Your task to perform on an android device: check out phone information Image 0: 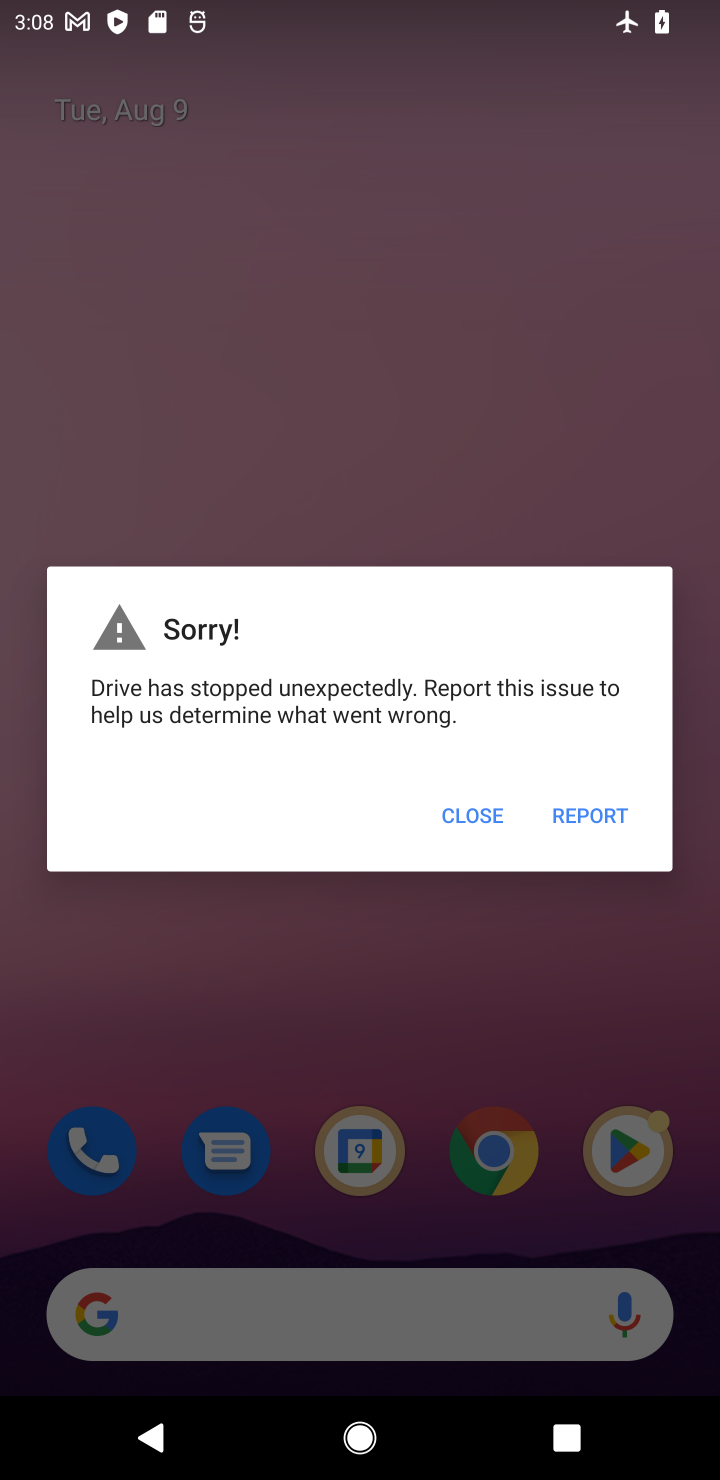
Step 0: press home button
Your task to perform on an android device: check out phone information Image 1: 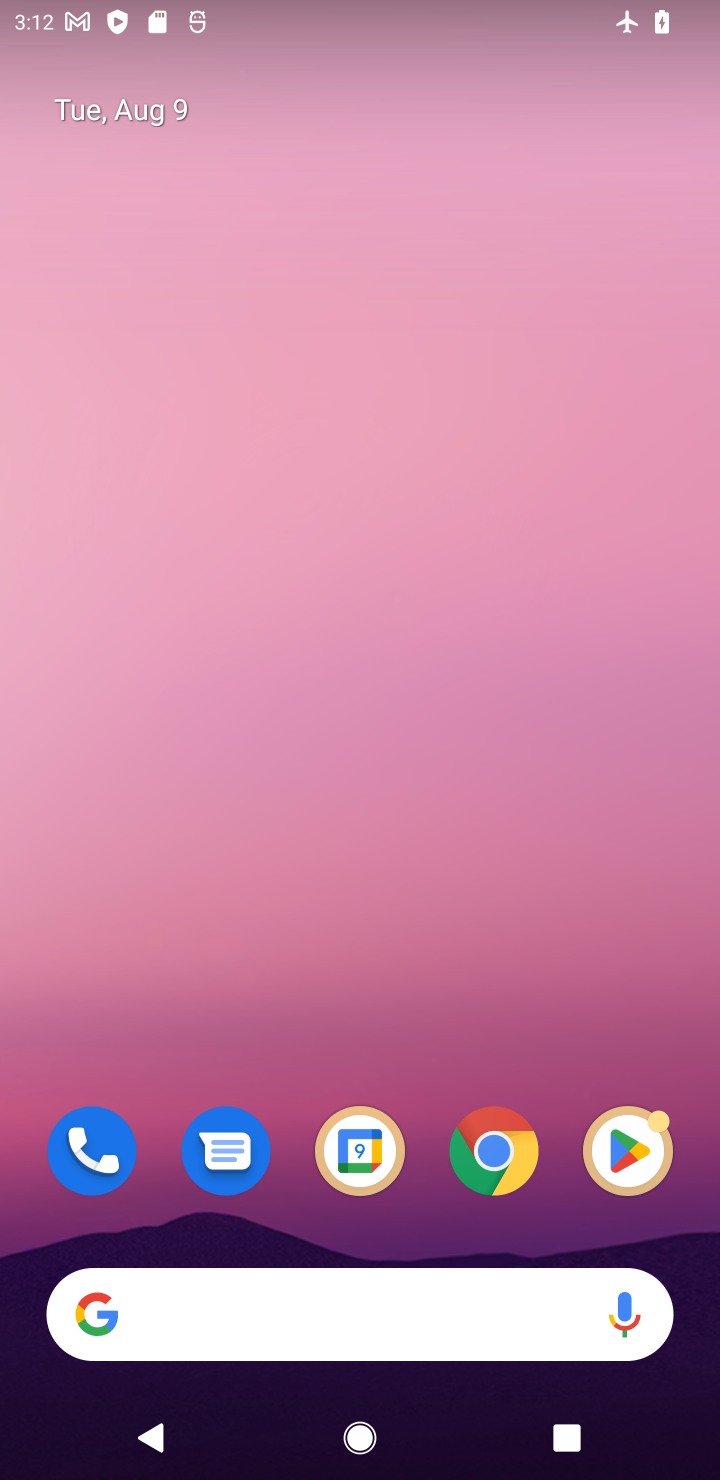
Step 1: drag from (481, 1251) to (502, 573)
Your task to perform on an android device: check out phone information Image 2: 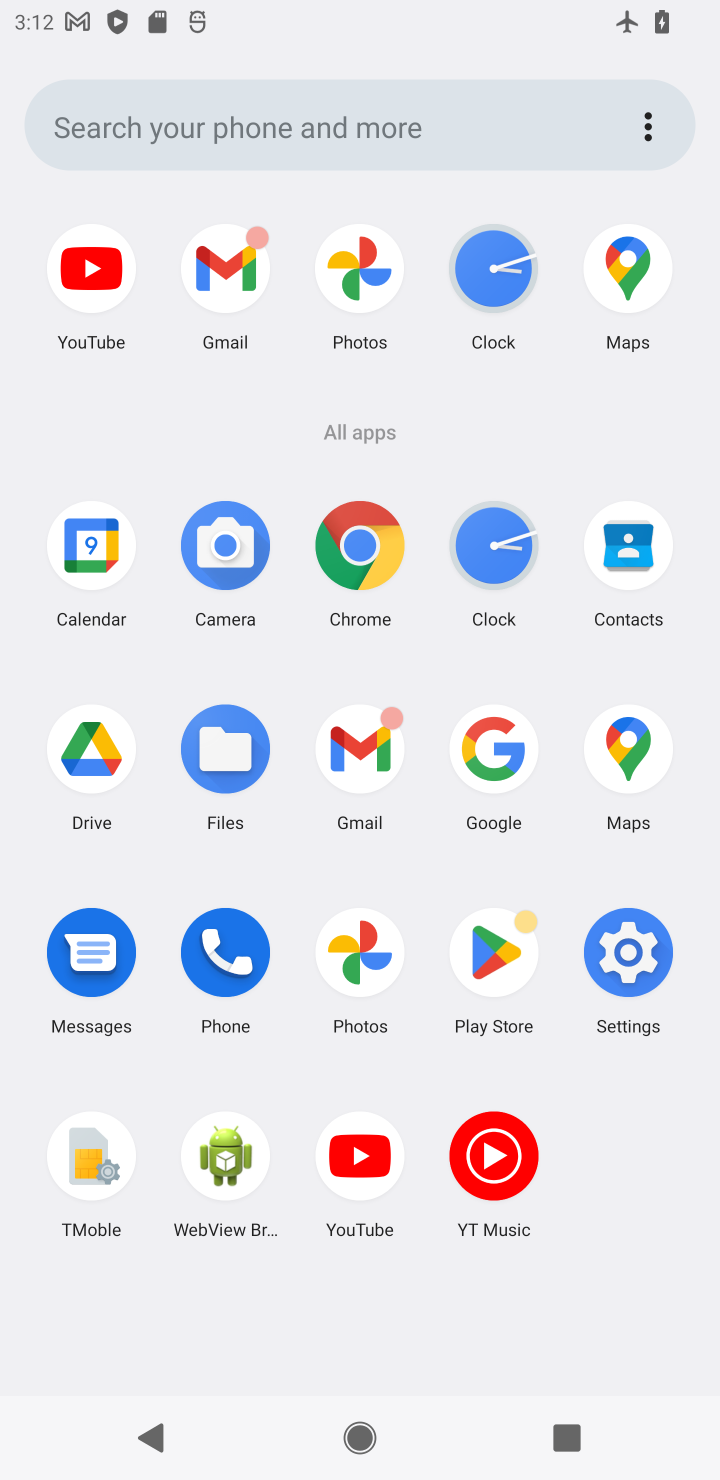
Step 2: click (654, 967)
Your task to perform on an android device: check out phone information Image 3: 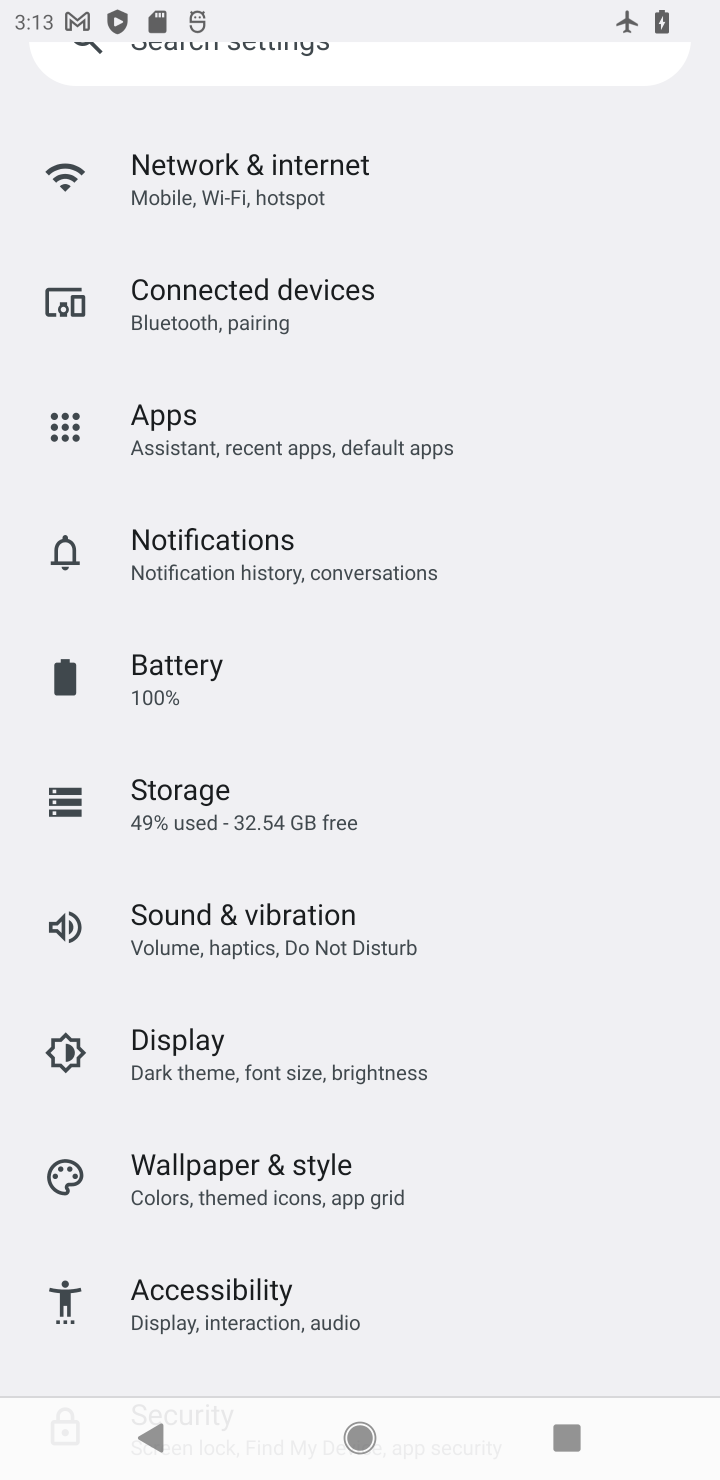
Step 3: drag from (534, 1242) to (643, 92)
Your task to perform on an android device: check out phone information Image 4: 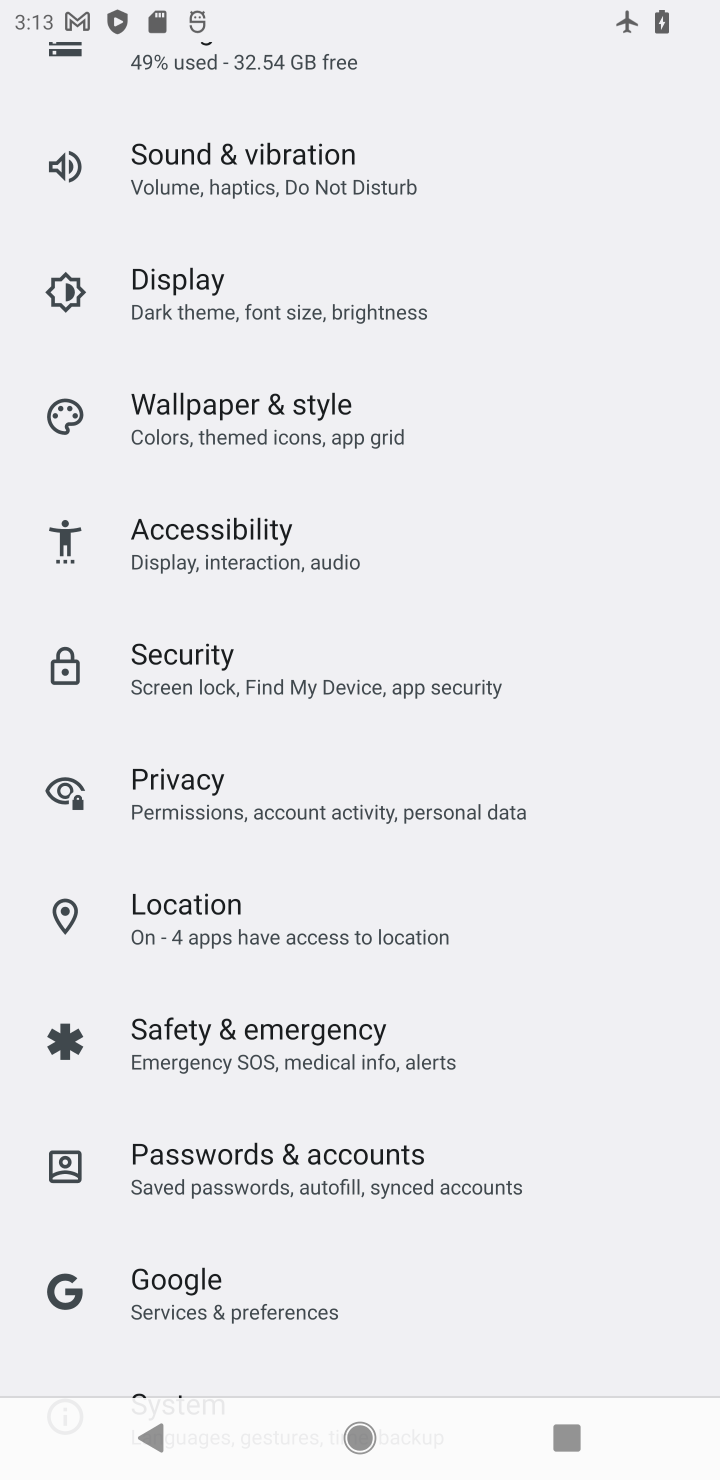
Step 4: drag from (358, 1213) to (710, 1120)
Your task to perform on an android device: check out phone information Image 5: 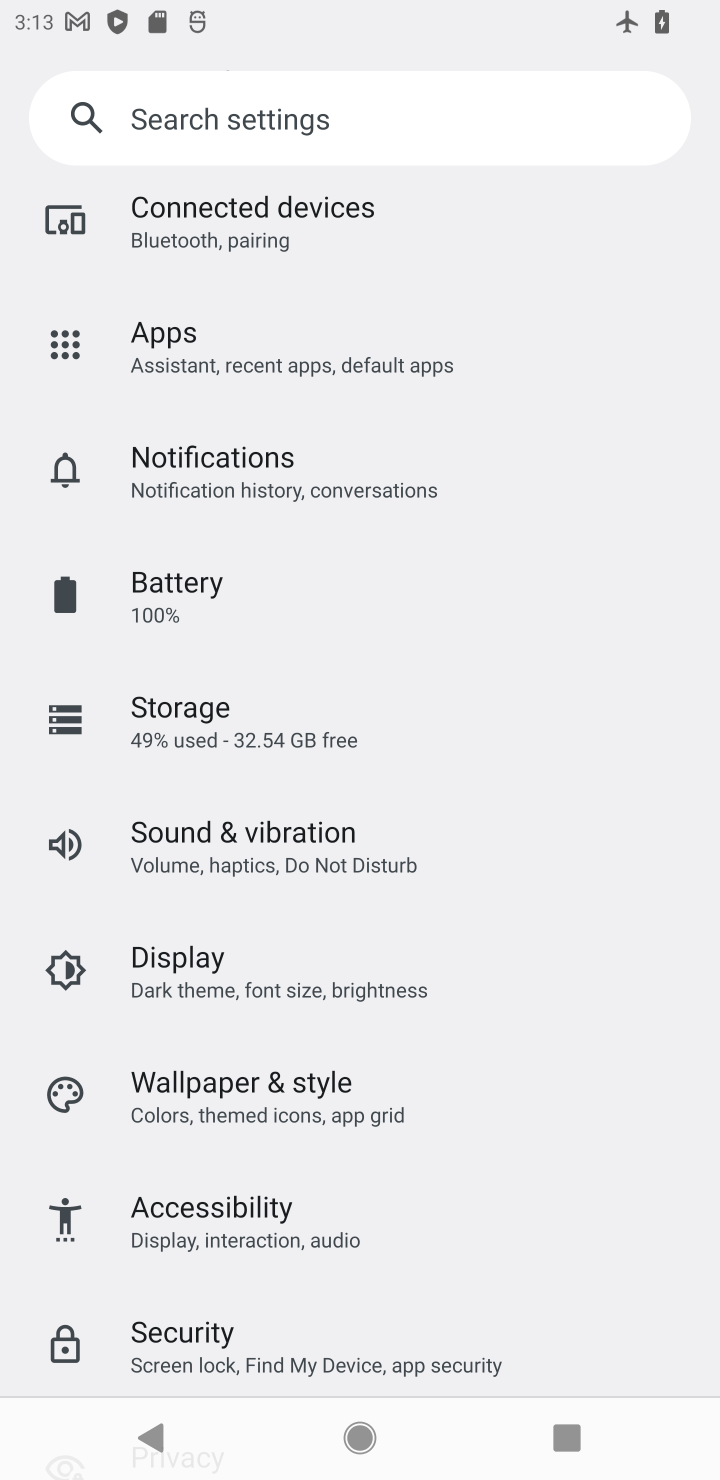
Step 5: drag from (494, 1292) to (689, 609)
Your task to perform on an android device: check out phone information Image 6: 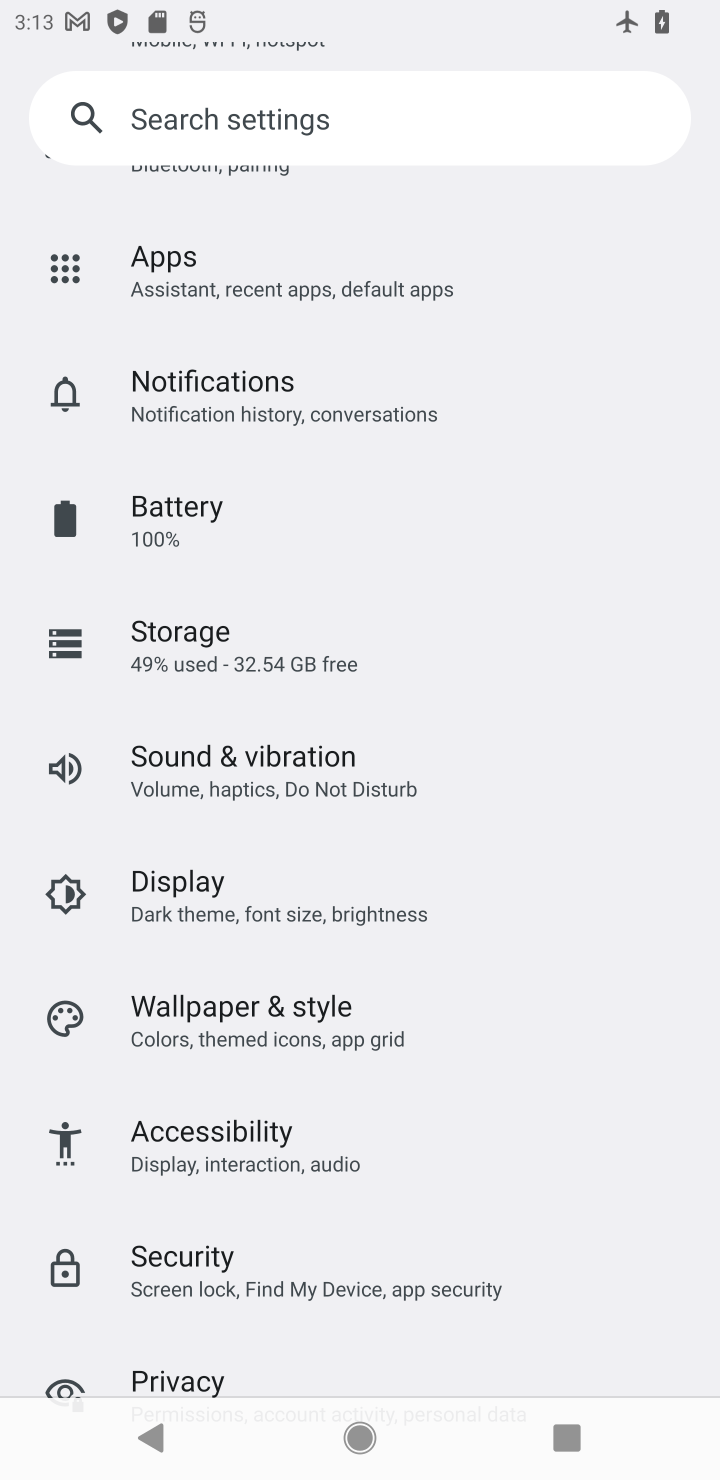
Step 6: drag from (415, 655) to (714, 491)
Your task to perform on an android device: check out phone information Image 7: 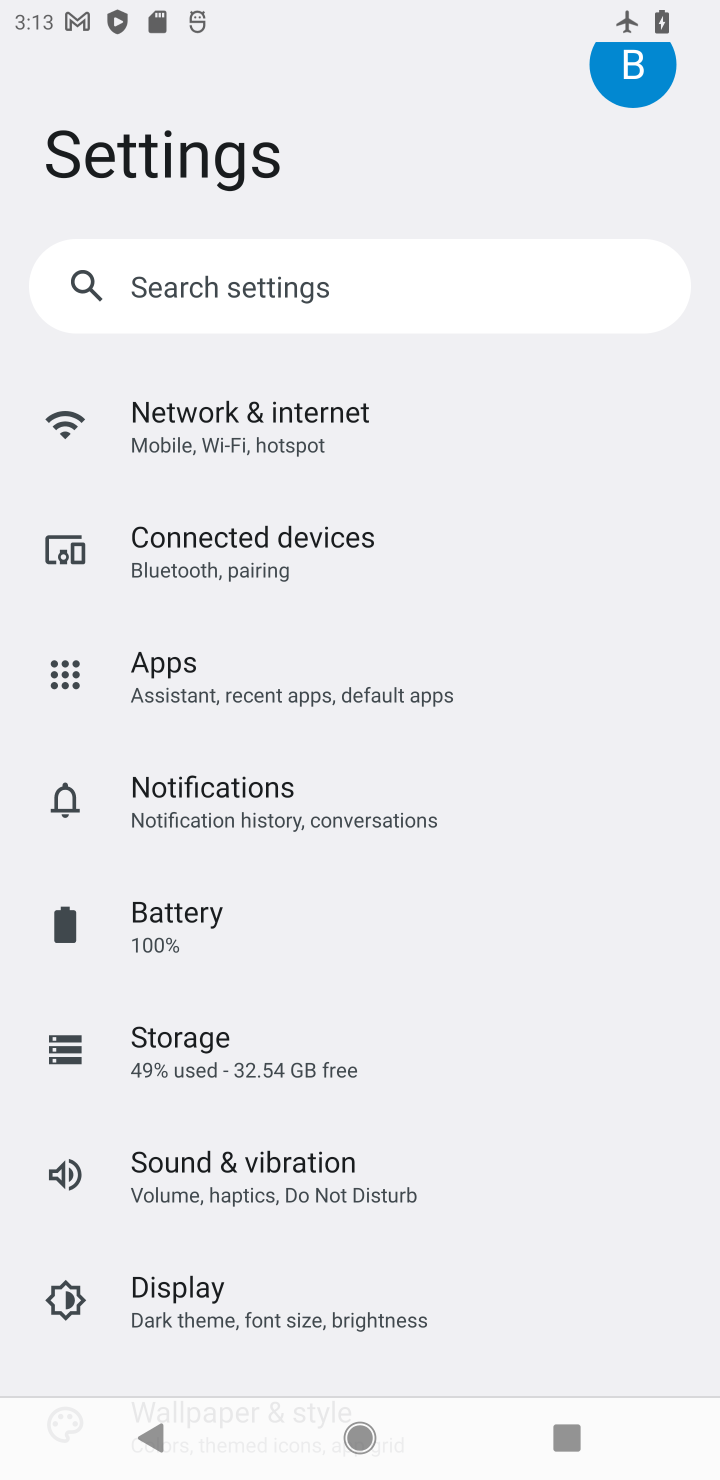
Step 7: drag from (484, 1302) to (660, 411)
Your task to perform on an android device: check out phone information Image 8: 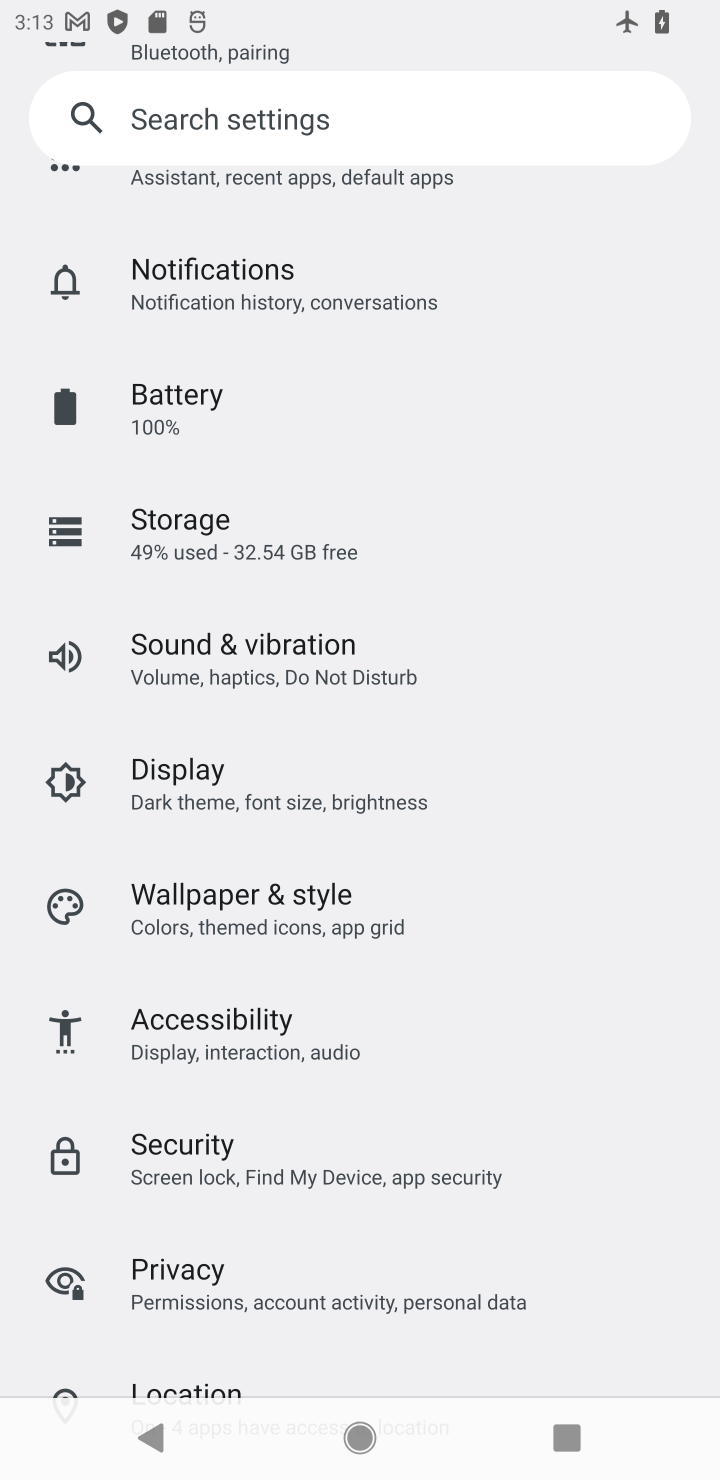
Step 8: drag from (625, 1183) to (717, 328)
Your task to perform on an android device: check out phone information Image 9: 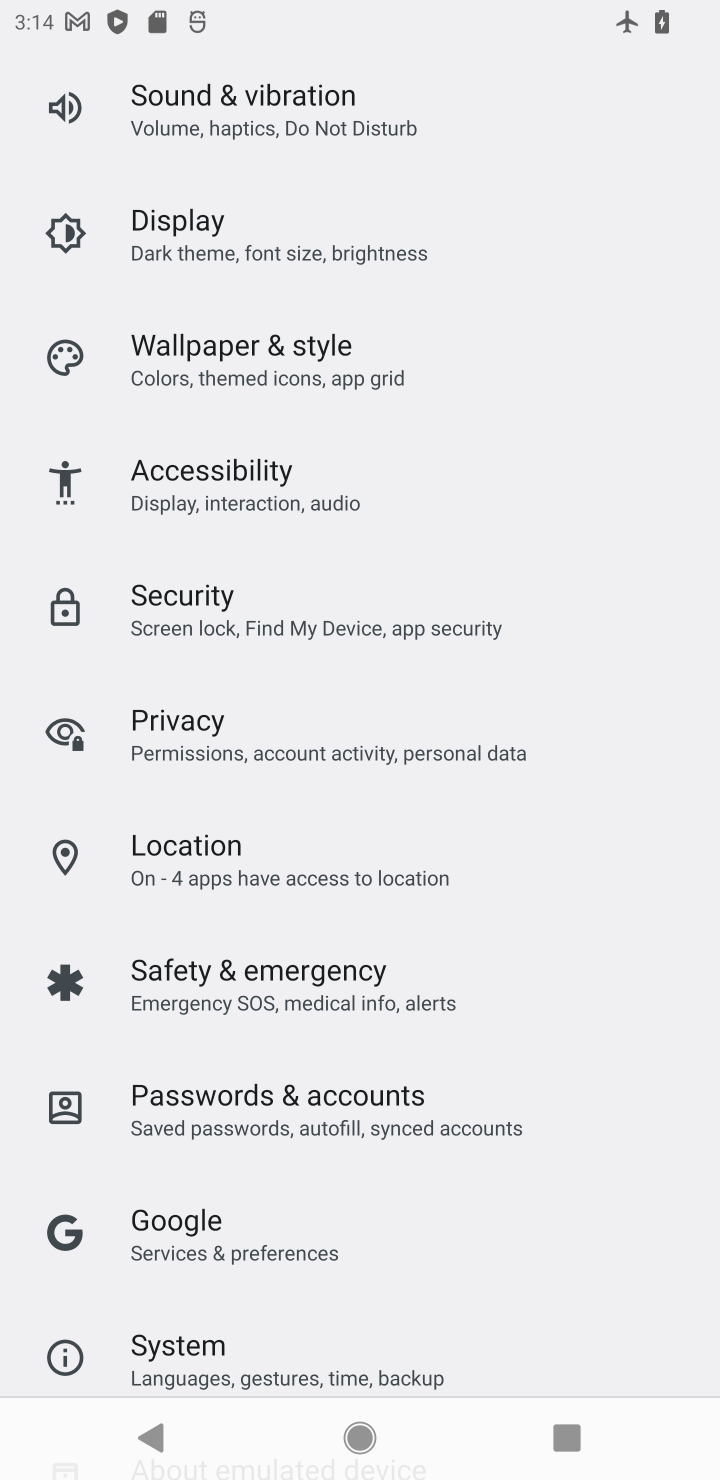
Step 9: click (272, 1349)
Your task to perform on an android device: check out phone information Image 10: 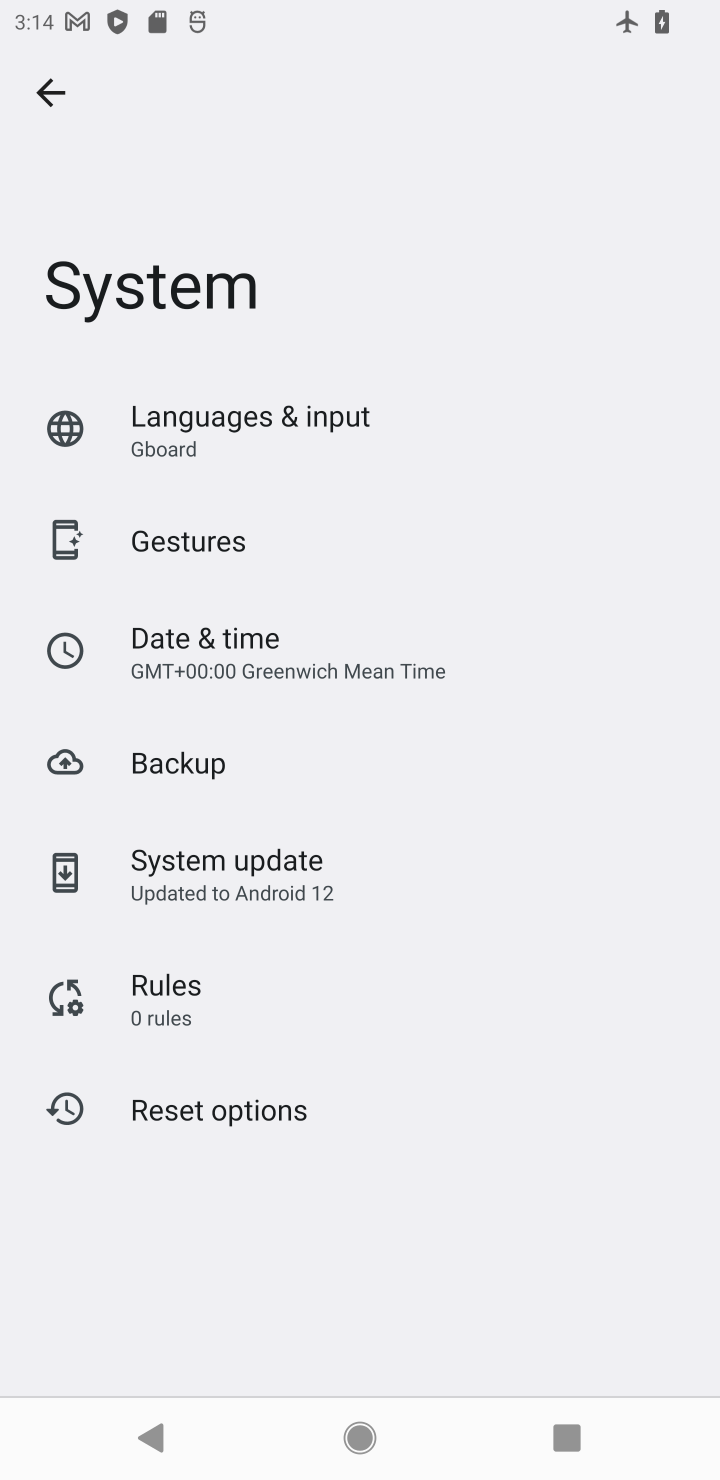
Step 10: task complete